Your task to perform on an android device: turn off notifications in google photos Image 0: 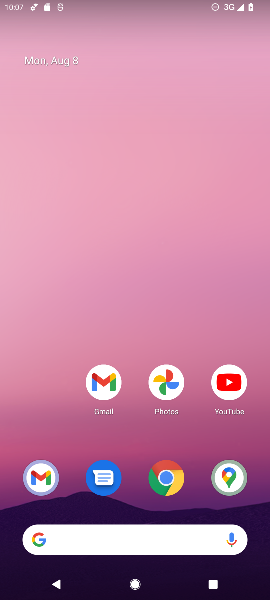
Step 0: drag from (136, 517) to (142, 59)
Your task to perform on an android device: turn off notifications in google photos Image 1: 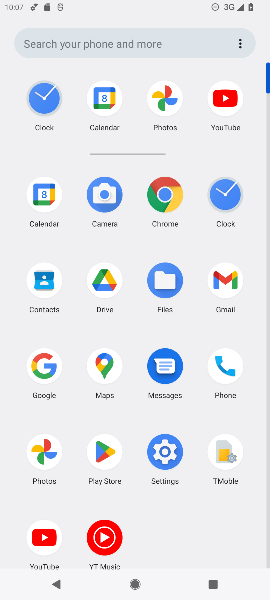
Step 1: click (25, 440)
Your task to perform on an android device: turn off notifications in google photos Image 2: 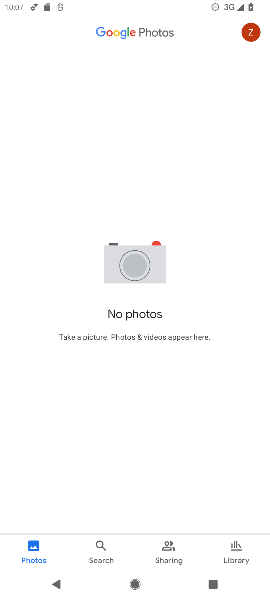
Step 2: click (241, 34)
Your task to perform on an android device: turn off notifications in google photos Image 3: 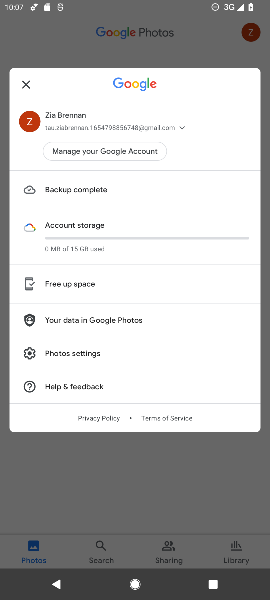
Step 3: click (64, 356)
Your task to perform on an android device: turn off notifications in google photos Image 4: 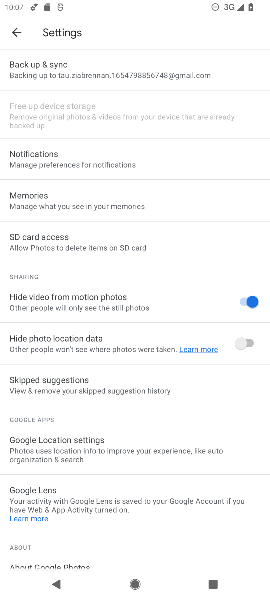
Step 4: click (42, 160)
Your task to perform on an android device: turn off notifications in google photos Image 5: 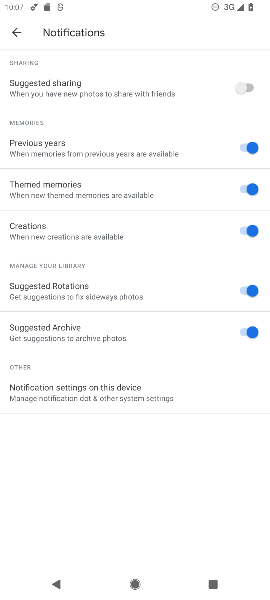
Step 5: click (79, 389)
Your task to perform on an android device: turn off notifications in google photos Image 6: 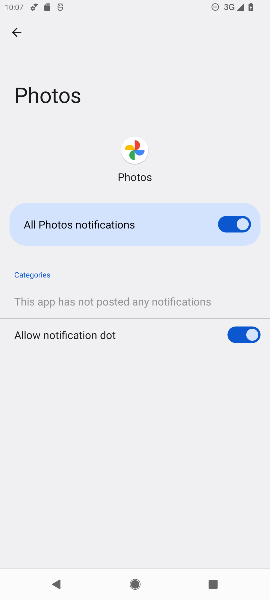
Step 6: click (225, 214)
Your task to perform on an android device: turn off notifications in google photos Image 7: 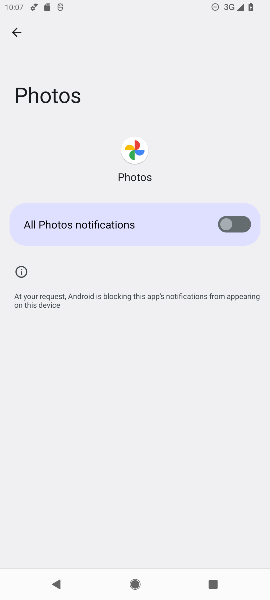
Step 7: task complete